Your task to perform on an android device: Check the news Image 0: 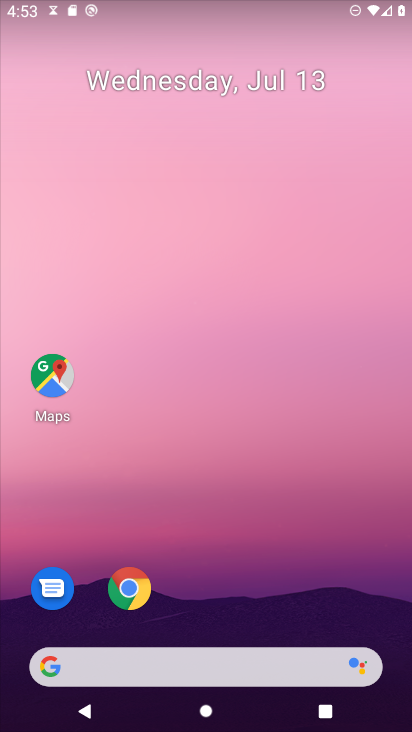
Step 0: click (223, 67)
Your task to perform on an android device: Check the news Image 1: 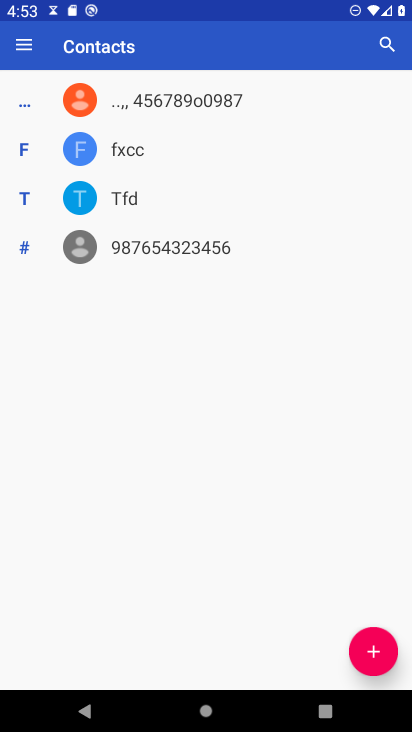
Step 1: press back button
Your task to perform on an android device: Check the news Image 2: 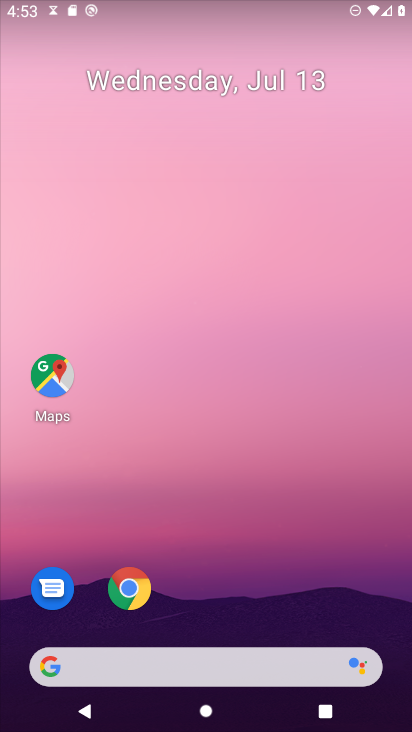
Step 2: drag from (184, 454) to (181, 120)
Your task to perform on an android device: Check the news Image 3: 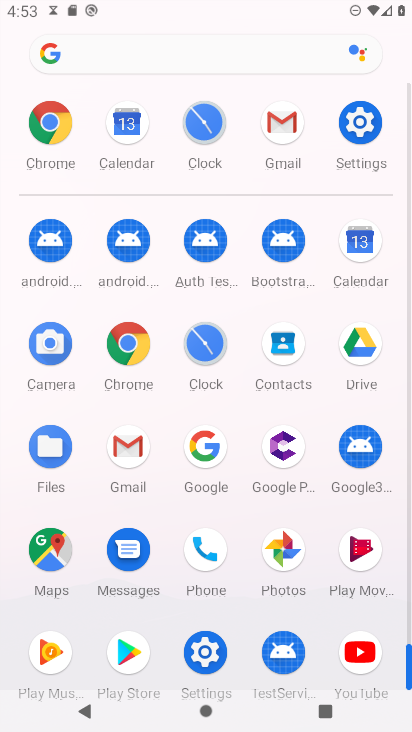
Step 3: click (128, 349)
Your task to perform on an android device: Check the news Image 4: 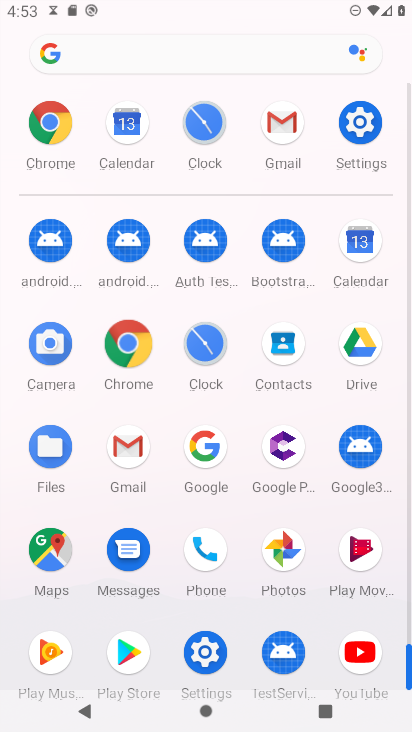
Step 4: click (136, 338)
Your task to perform on an android device: Check the news Image 5: 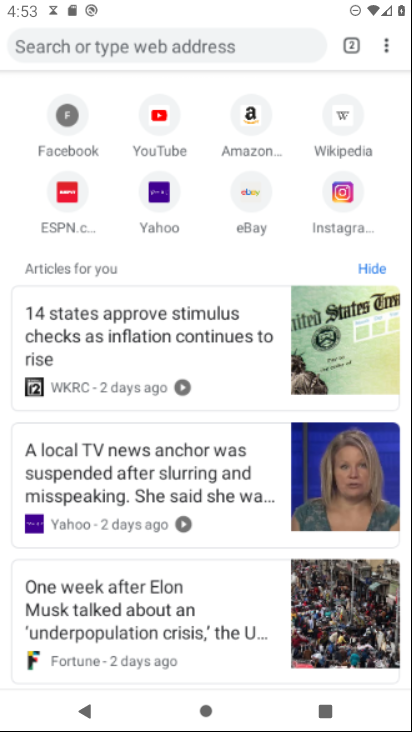
Step 5: click (134, 339)
Your task to perform on an android device: Check the news Image 6: 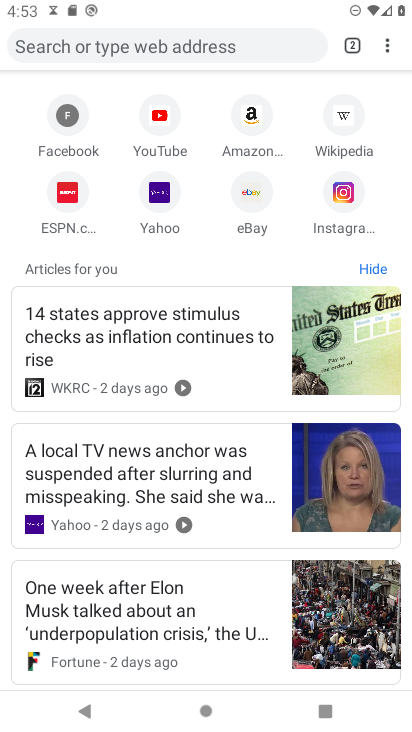
Step 6: task complete